Your task to perform on an android device: make emails show in primary in the gmail app Image 0: 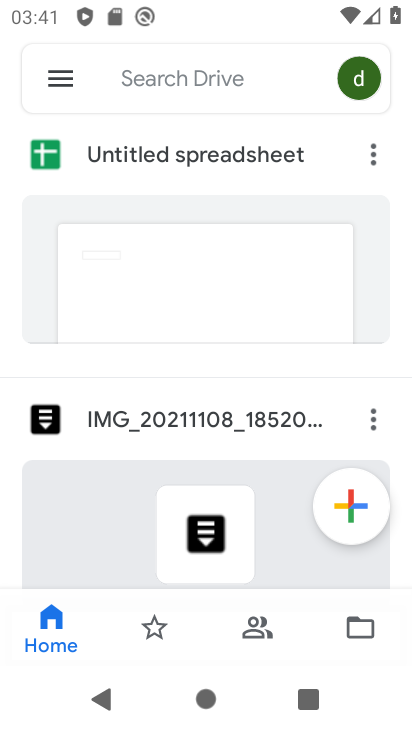
Step 0: press home button
Your task to perform on an android device: make emails show in primary in the gmail app Image 1: 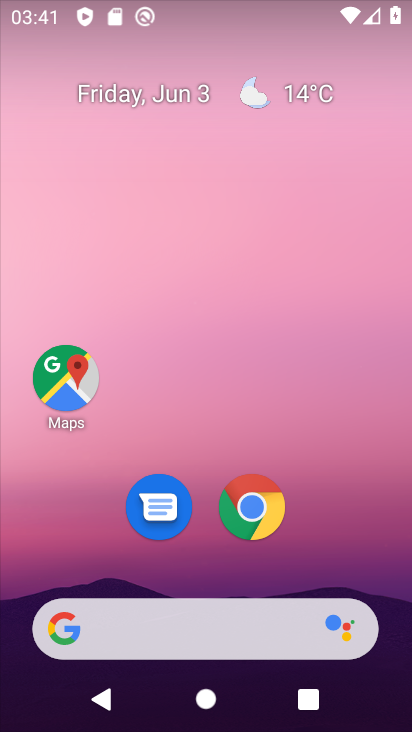
Step 1: drag from (340, 556) to (262, 46)
Your task to perform on an android device: make emails show in primary in the gmail app Image 2: 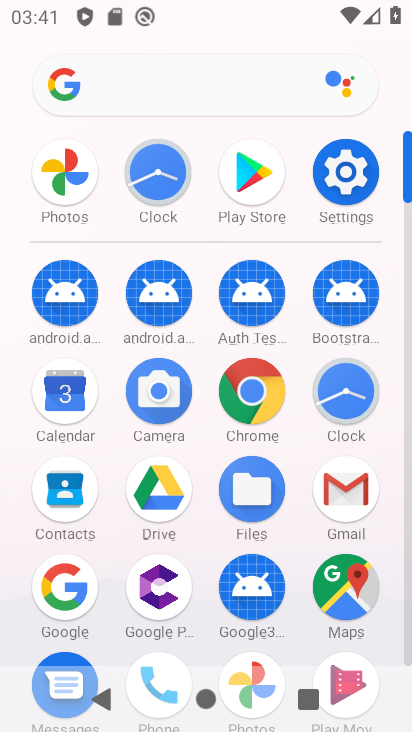
Step 2: click (354, 495)
Your task to perform on an android device: make emails show in primary in the gmail app Image 3: 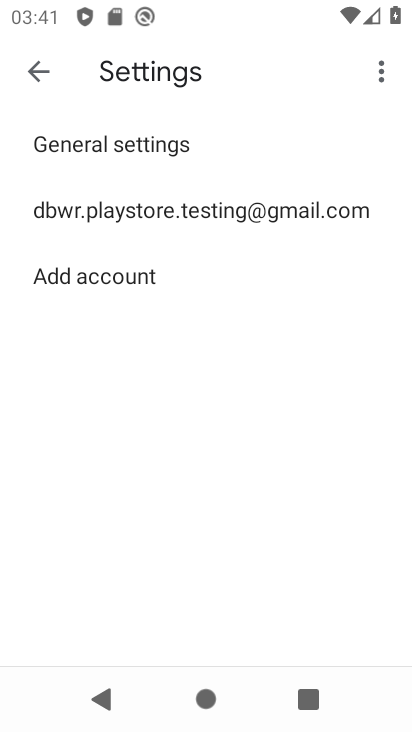
Step 3: click (136, 206)
Your task to perform on an android device: make emails show in primary in the gmail app Image 4: 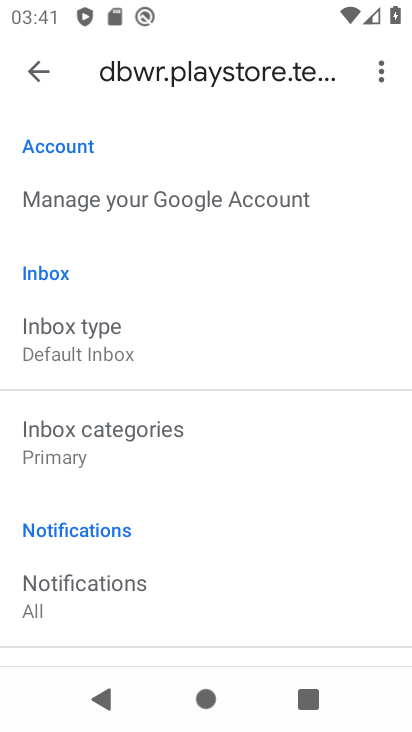
Step 4: click (70, 435)
Your task to perform on an android device: make emails show in primary in the gmail app Image 5: 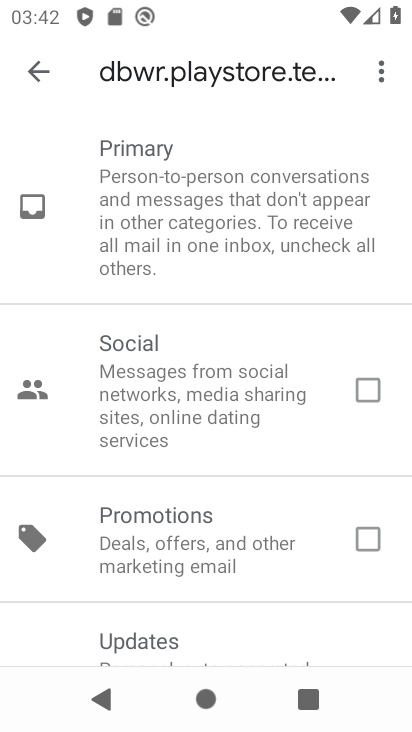
Step 5: task complete